Your task to perform on an android device: toggle data saver in the chrome app Image 0: 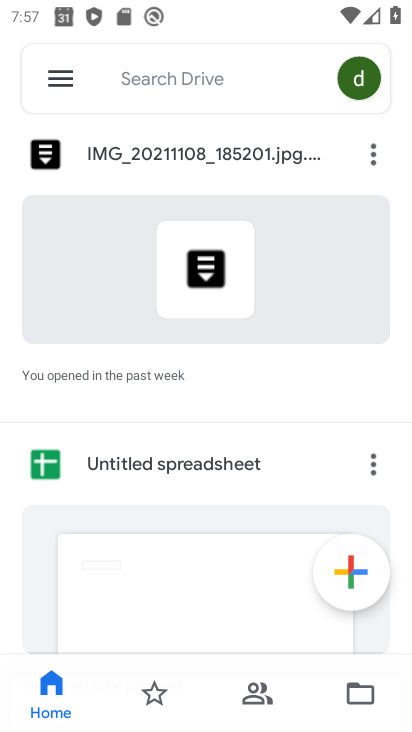
Step 0: press home button
Your task to perform on an android device: toggle data saver in the chrome app Image 1: 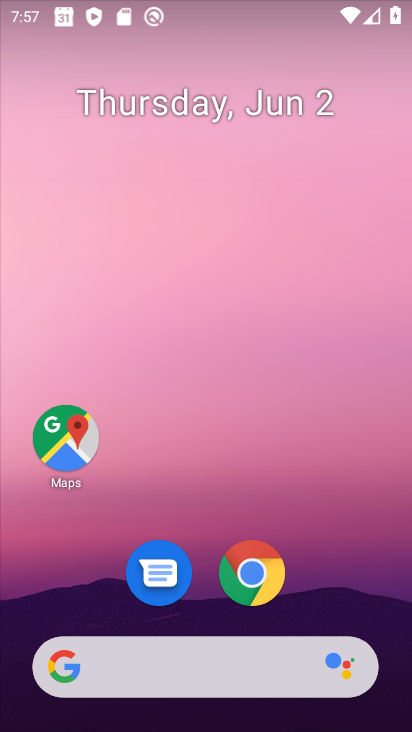
Step 1: drag from (381, 541) to (355, 15)
Your task to perform on an android device: toggle data saver in the chrome app Image 2: 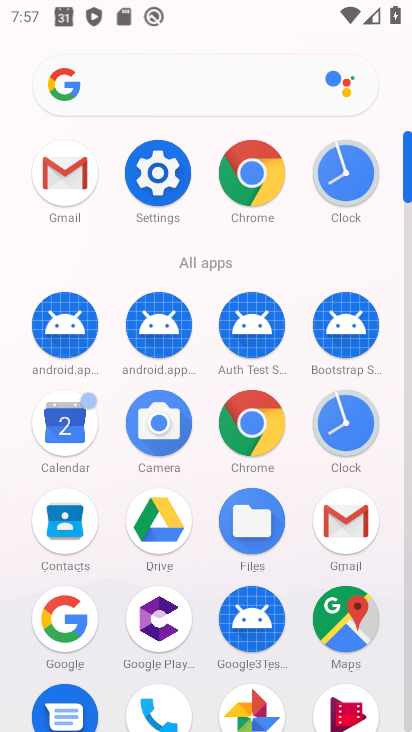
Step 2: click (264, 172)
Your task to perform on an android device: toggle data saver in the chrome app Image 3: 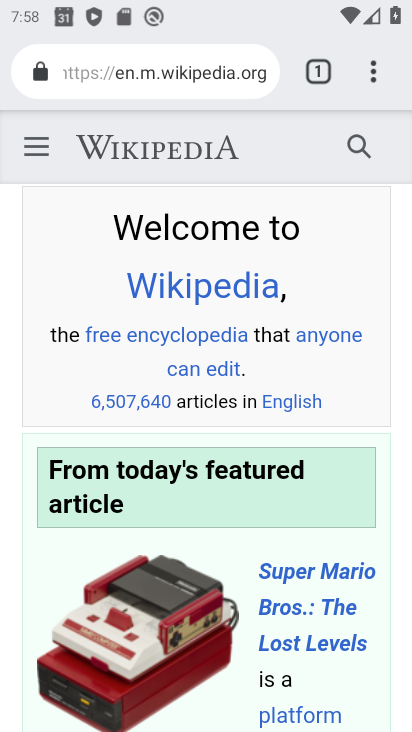
Step 3: drag from (363, 71) to (112, 562)
Your task to perform on an android device: toggle data saver in the chrome app Image 4: 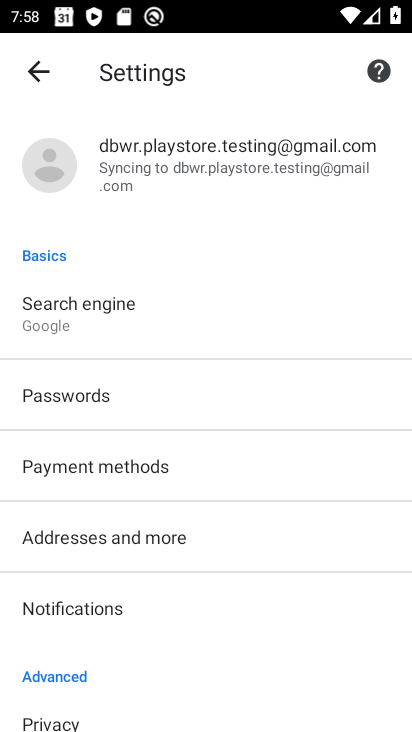
Step 4: drag from (174, 652) to (105, 232)
Your task to perform on an android device: toggle data saver in the chrome app Image 5: 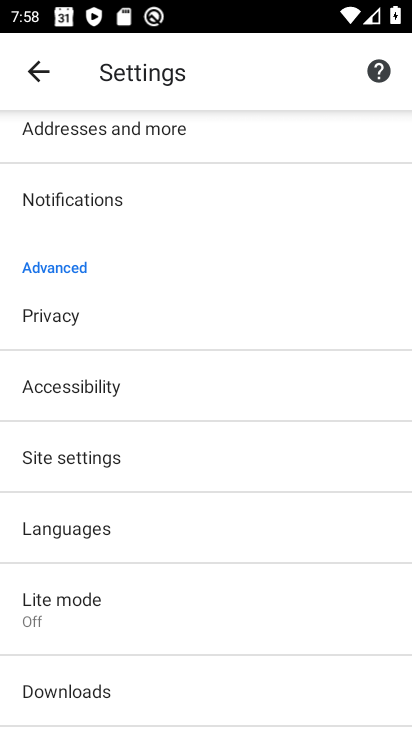
Step 5: click (113, 620)
Your task to perform on an android device: toggle data saver in the chrome app Image 6: 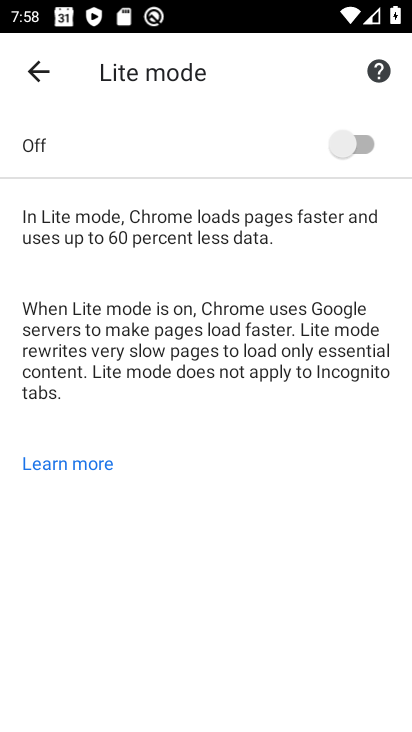
Step 6: click (336, 144)
Your task to perform on an android device: toggle data saver in the chrome app Image 7: 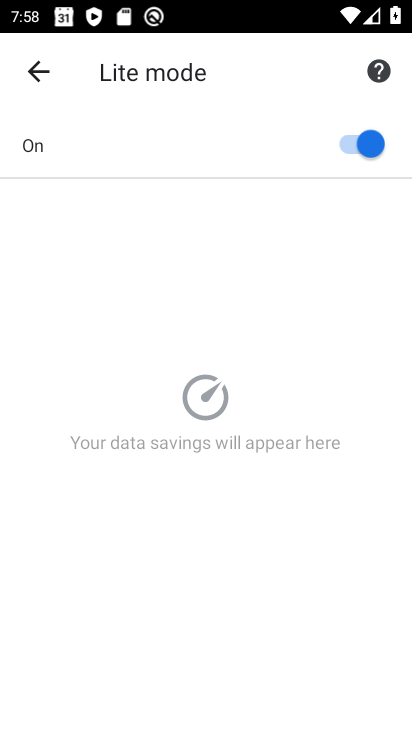
Step 7: task complete